Your task to perform on an android device: Open Youtube and go to the subscriptions tab Image 0: 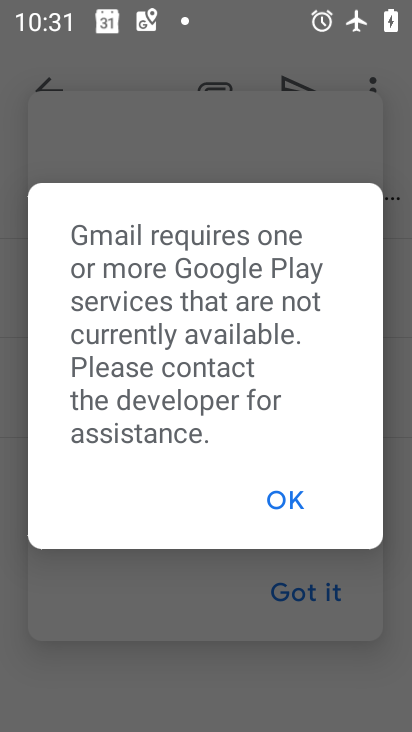
Step 0: press home button
Your task to perform on an android device: Open Youtube and go to the subscriptions tab Image 1: 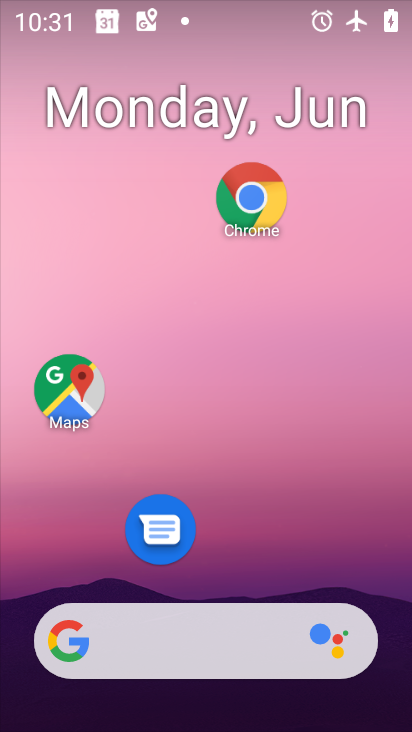
Step 1: drag from (284, 524) to (275, 130)
Your task to perform on an android device: Open Youtube and go to the subscriptions tab Image 2: 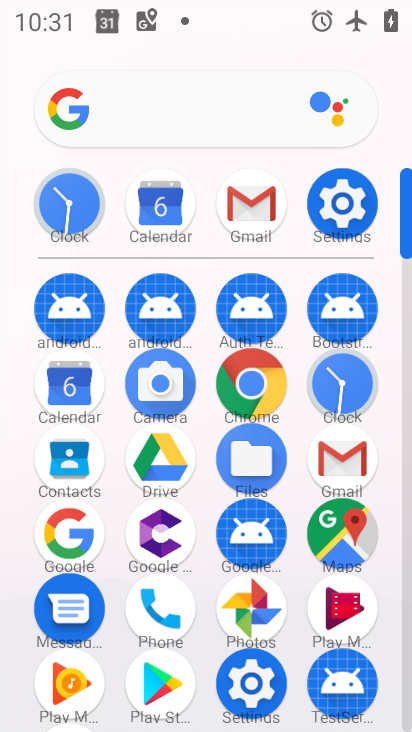
Step 2: drag from (210, 643) to (254, 320)
Your task to perform on an android device: Open Youtube and go to the subscriptions tab Image 3: 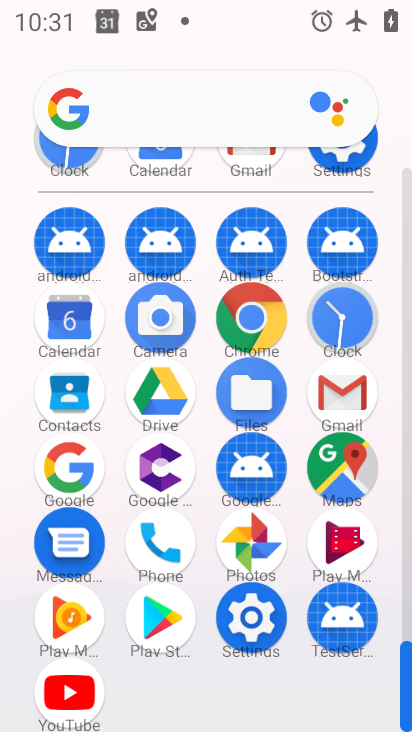
Step 3: click (66, 664)
Your task to perform on an android device: Open Youtube and go to the subscriptions tab Image 4: 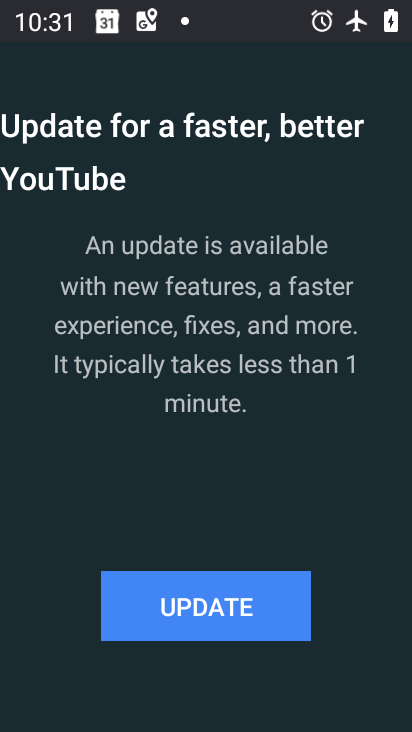
Step 4: click (248, 589)
Your task to perform on an android device: Open Youtube and go to the subscriptions tab Image 5: 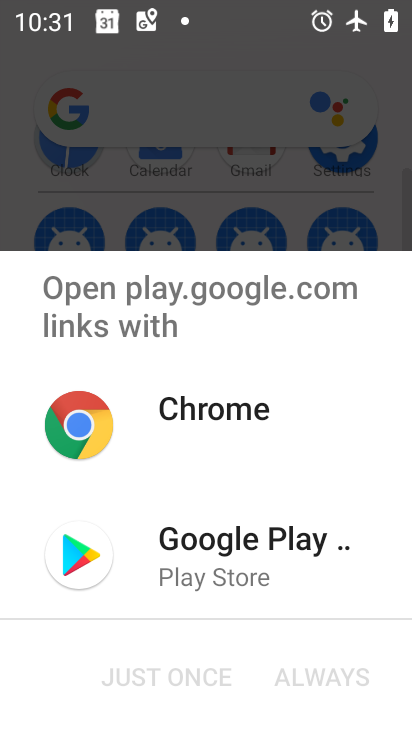
Step 5: click (226, 565)
Your task to perform on an android device: Open Youtube and go to the subscriptions tab Image 6: 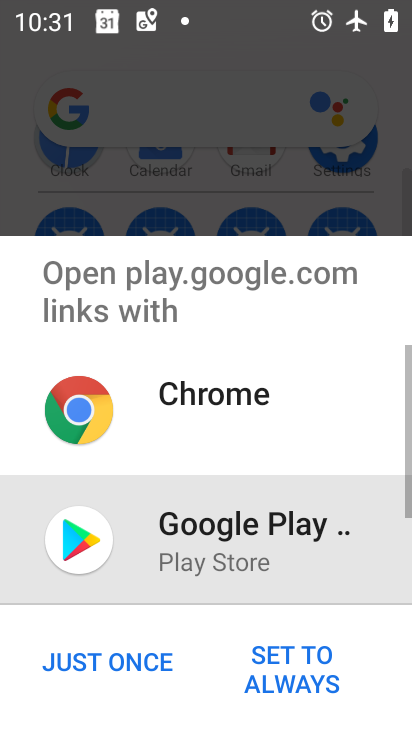
Step 6: click (120, 667)
Your task to perform on an android device: Open Youtube and go to the subscriptions tab Image 7: 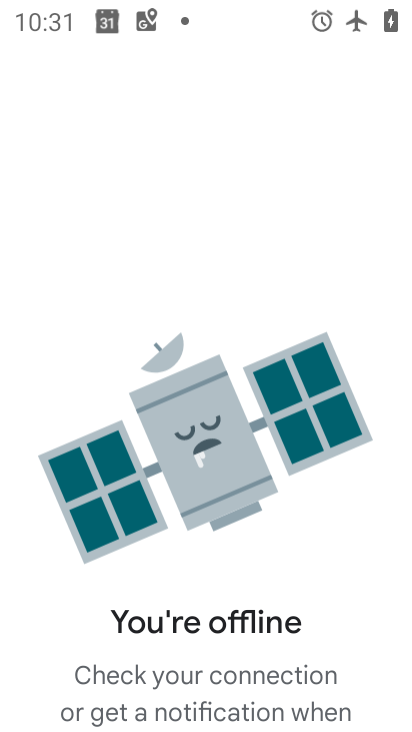
Step 7: task complete